Your task to perform on an android device: all mails in gmail Image 0: 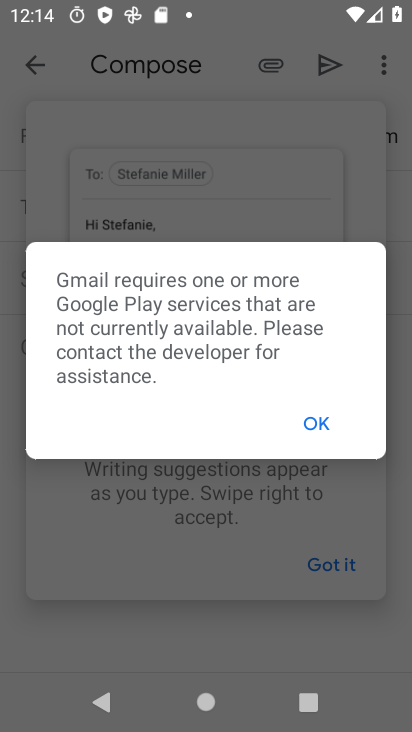
Step 0: press home button
Your task to perform on an android device: all mails in gmail Image 1: 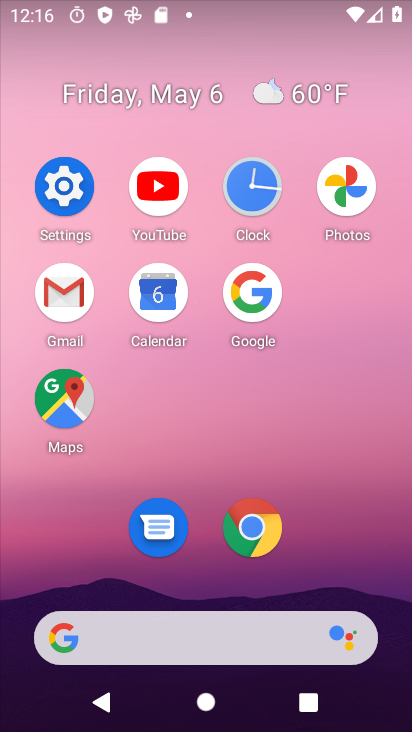
Step 1: click (59, 283)
Your task to perform on an android device: all mails in gmail Image 2: 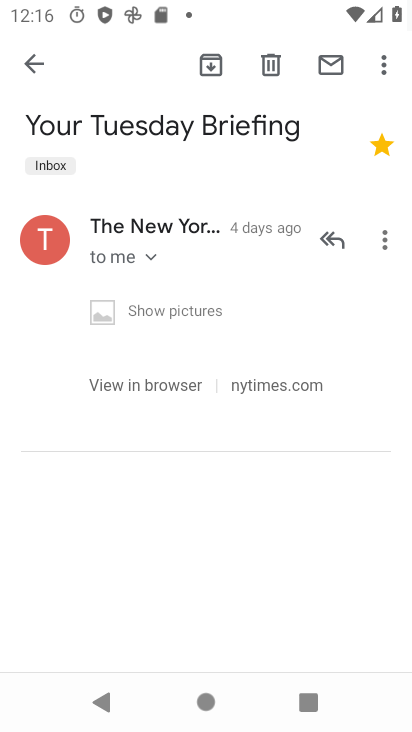
Step 2: click (38, 62)
Your task to perform on an android device: all mails in gmail Image 3: 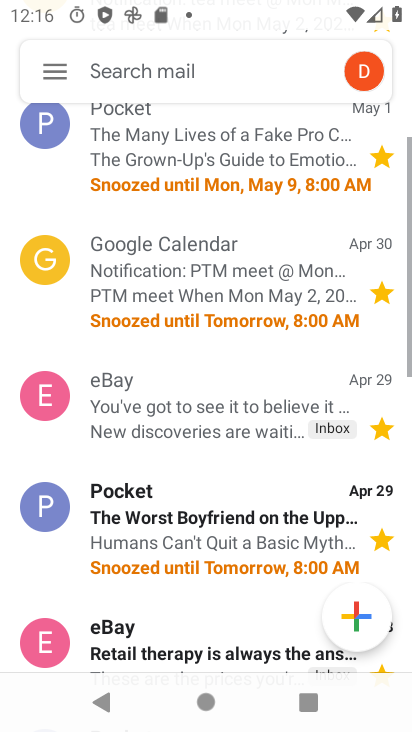
Step 3: click (50, 69)
Your task to perform on an android device: all mails in gmail Image 4: 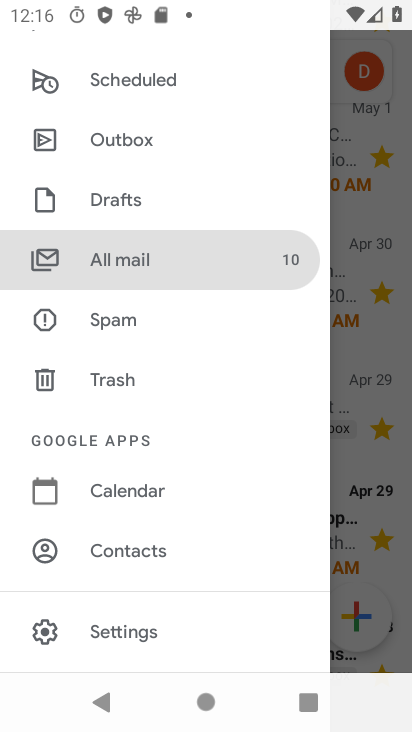
Step 4: click (130, 260)
Your task to perform on an android device: all mails in gmail Image 5: 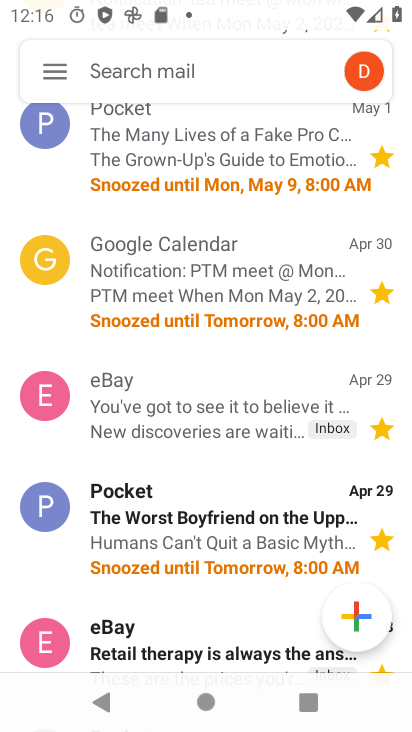
Step 5: task complete